Your task to perform on an android device: turn on the 24-hour format for clock Image 0: 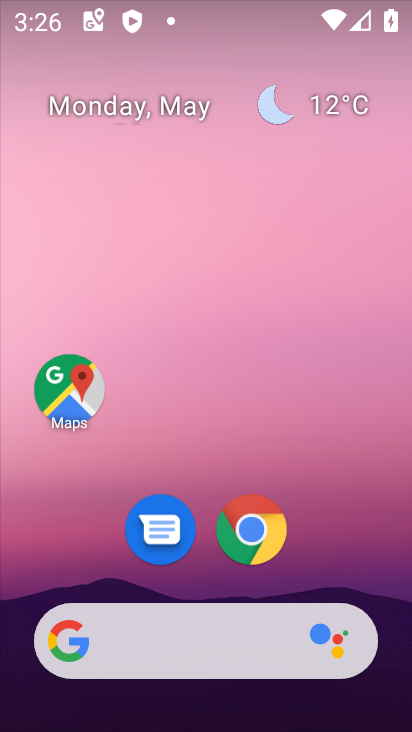
Step 0: drag from (321, 460) to (305, 26)
Your task to perform on an android device: turn on the 24-hour format for clock Image 1: 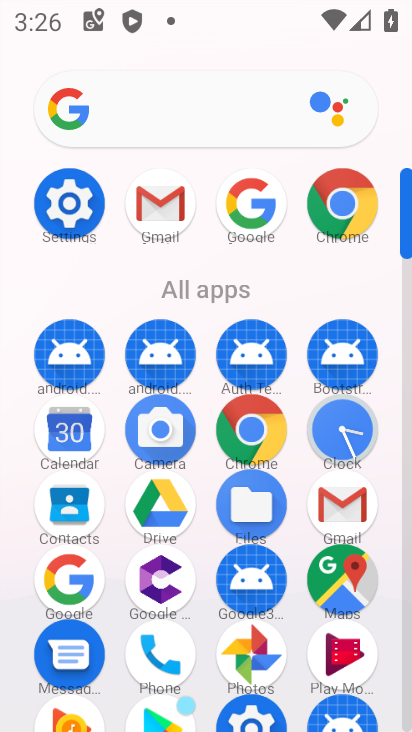
Step 1: click (349, 416)
Your task to perform on an android device: turn on the 24-hour format for clock Image 2: 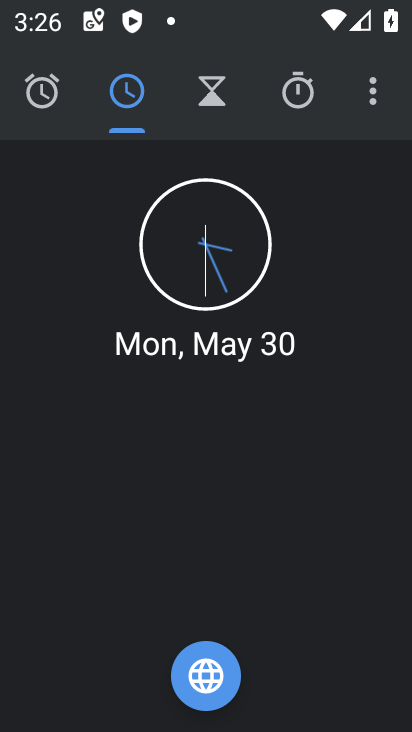
Step 2: click (376, 83)
Your task to perform on an android device: turn on the 24-hour format for clock Image 3: 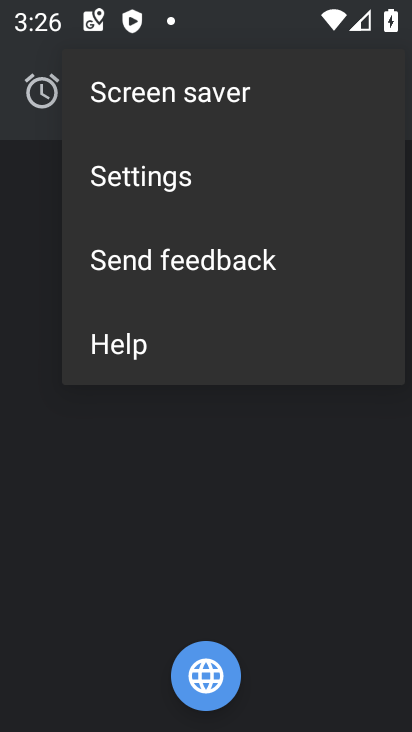
Step 3: click (168, 181)
Your task to perform on an android device: turn on the 24-hour format for clock Image 4: 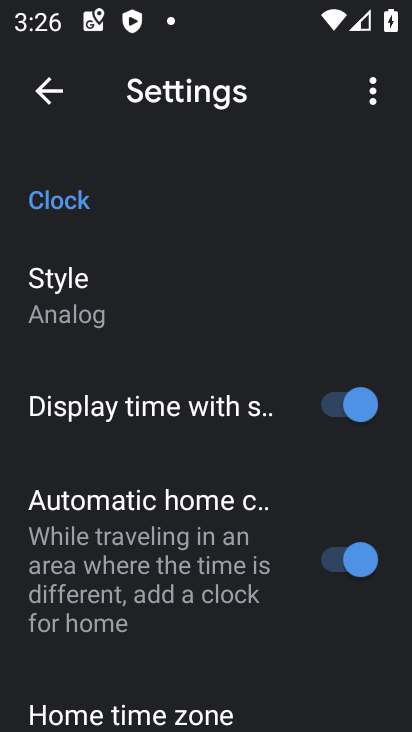
Step 4: drag from (196, 638) to (193, 223)
Your task to perform on an android device: turn on the 24-hour format for clock Image 5: 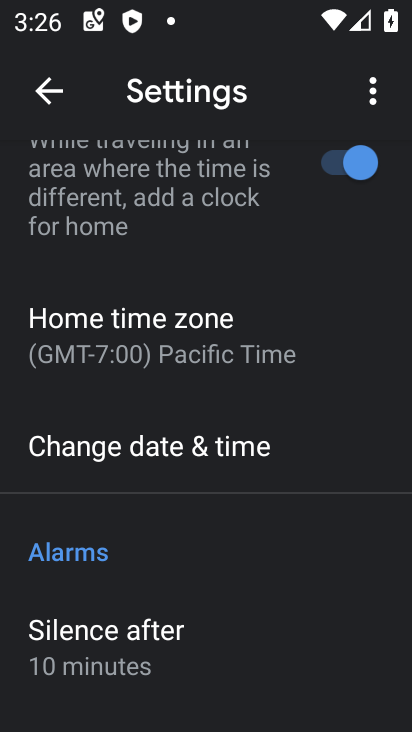
Step 5: click (190, 448)
Your task to perform on an android device: turn on the 24-hour format for clock Image 6: 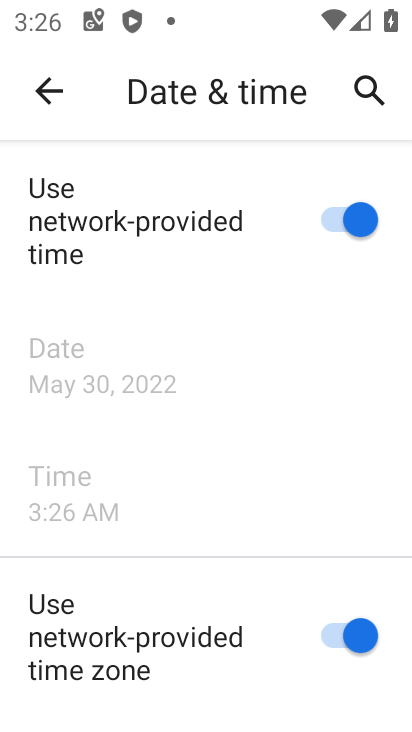
Step 6: drag from (221, 586) to (232, 120)
Your task to perform on an android device: turn on the 24-hour format for clock Image 7: 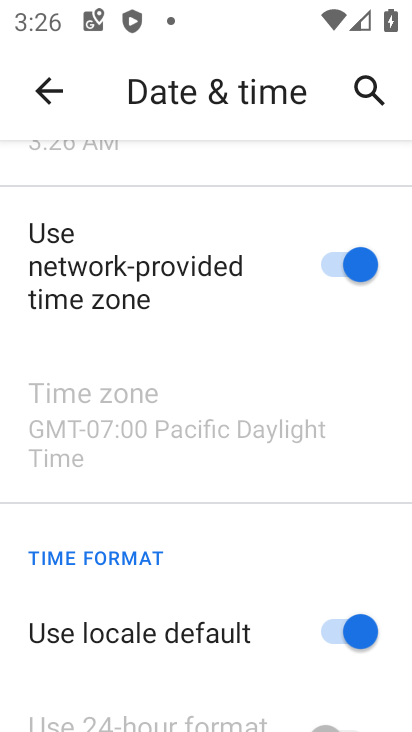
Step 7: drag from (218, 546) to (232, 234)
Your task to perform on an android device: turn on the 24-hour format for clock Image 8: 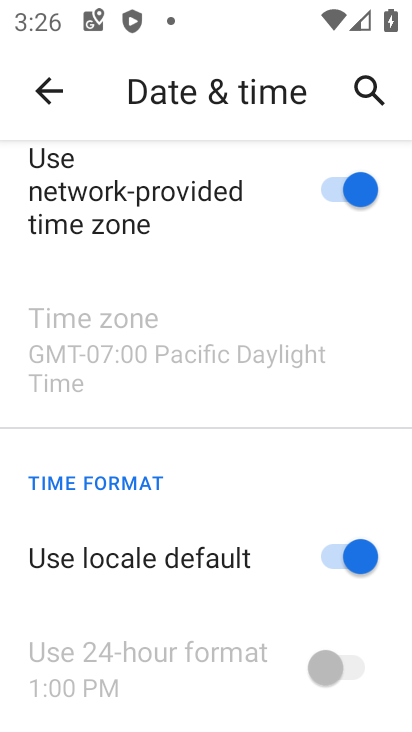
Step 8: click (335, 554)
Your task to perform on an android device: turn on the 24-hour format for clock Image 9: 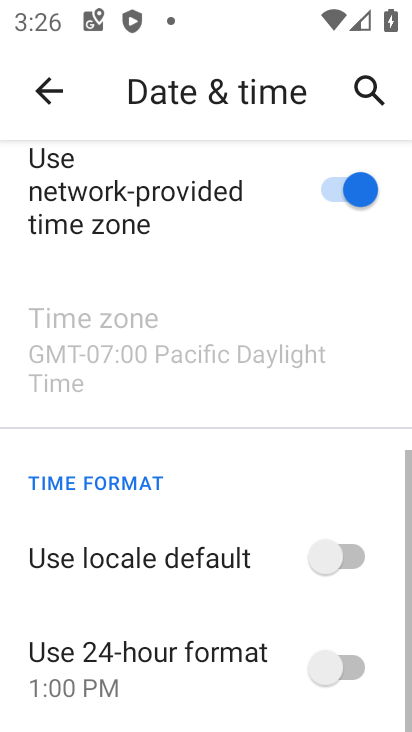
Step 9: click (355, 679)
Your task to perform on an android device: turn on the 24-hour format for clock Image 10: 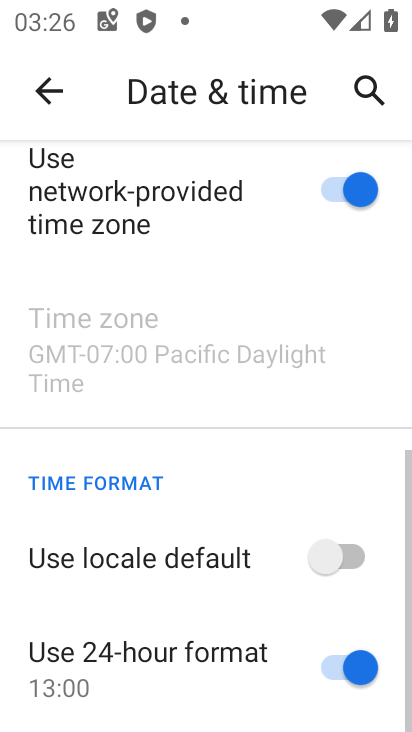
Step 10: task complete